Your task to perform on an android device: open sync settings in chrome Image 0: 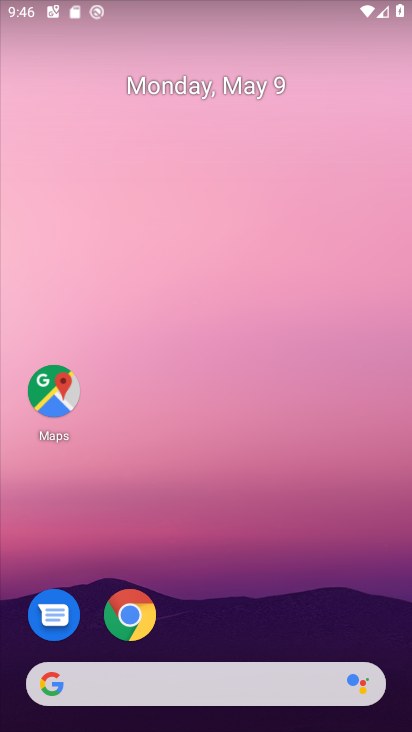
Step 0: drag from (285, 710) to (228, 288)
Your task to perform on an android device: open sync settings in chrome Image 1: 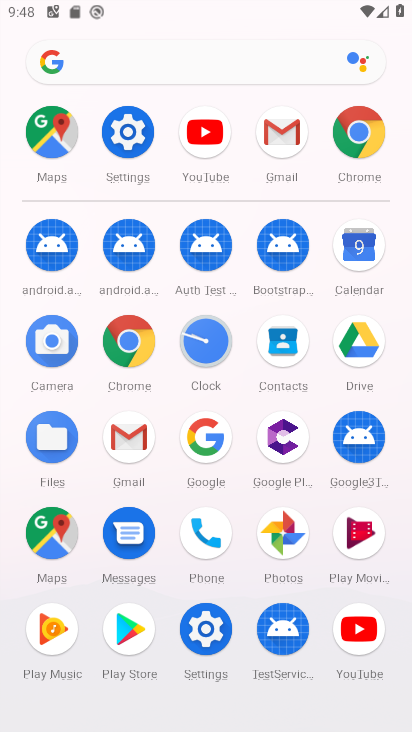
Step 1: click (351, 128)
Your task to perform on an android device: open sync settings in chrome Image 2: 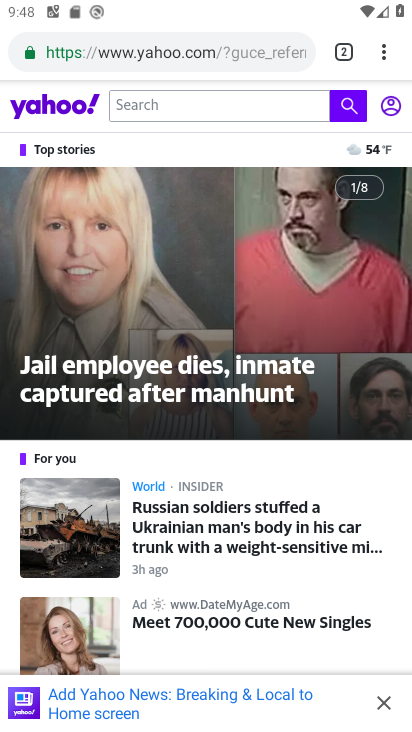
Step 2: click (379, 59)
Your task to perform on an android device: open sync settings in chrome Image 3: 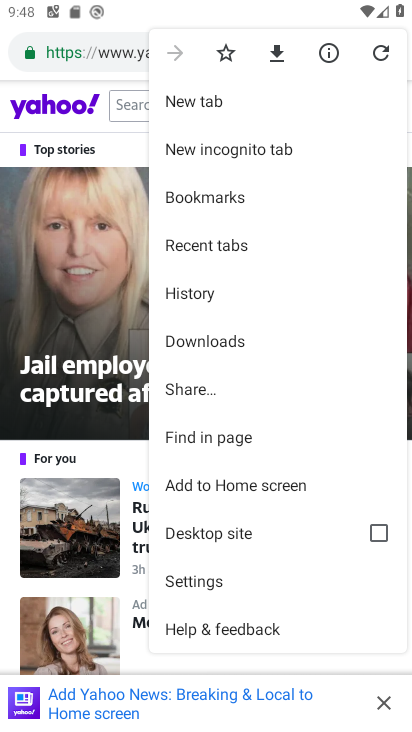
Step 3: click (197, 587)
Your task to perform on an android device: open sync settings in chrome Image 4: 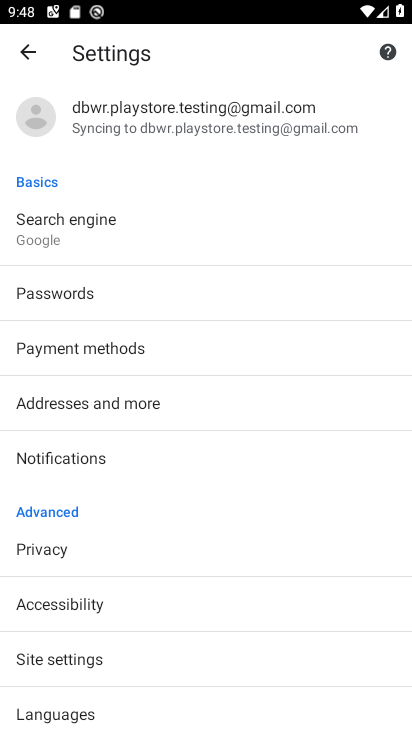
Step 4: click (53, 657)
Your task to perform on an android device: open sync settings in chrome Image 5: 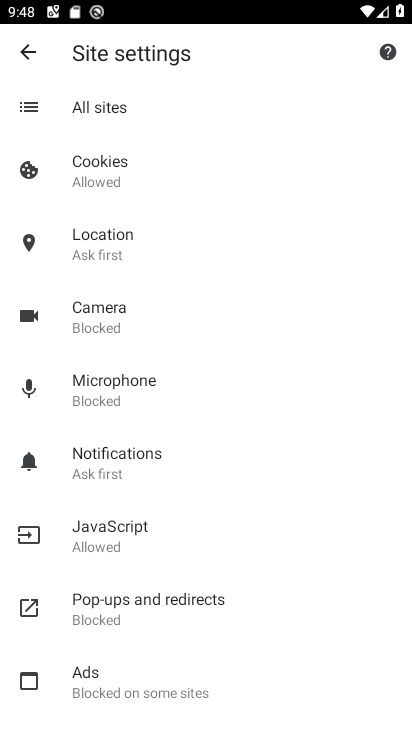
Step 5: drag from (53, 657) to (89, 357)
Your task to perform on an android device: open sync settings in chrome Image 6: 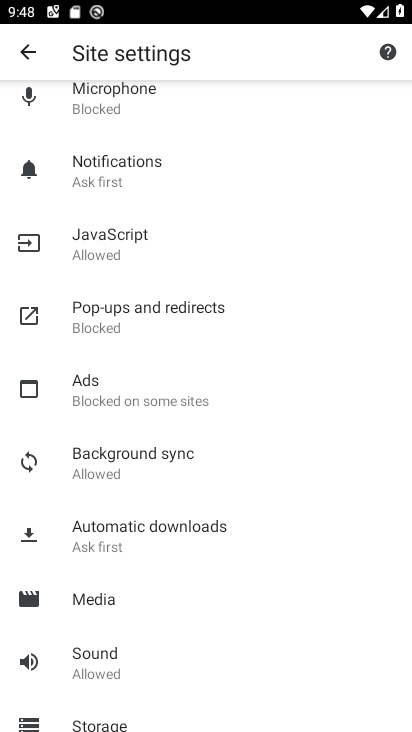
Step 6: drag from (168, 607) to (177, 530)
Your task to perform on an android device: open sync settings in chrome Image 7: 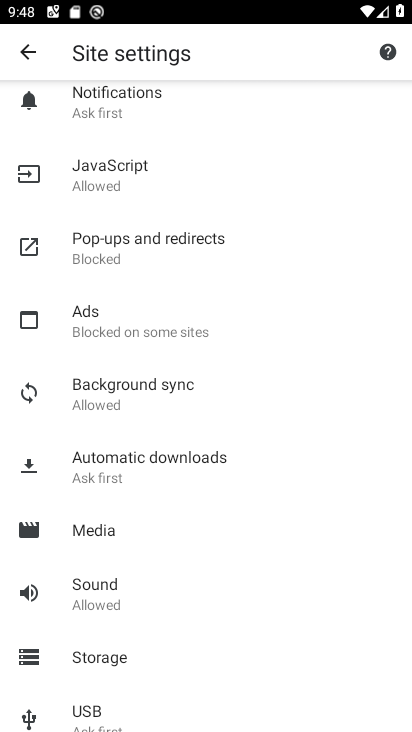
Step 7: click (127, 394)
Your task to perform on an android device: open sync settings in chrome Image 8: 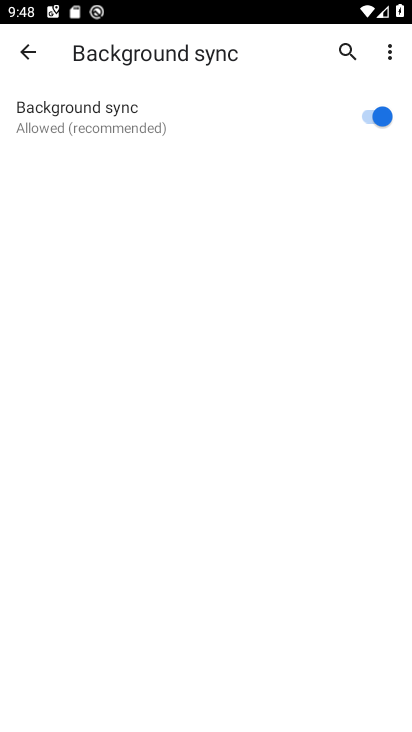
Step 8: task complete